Your task to perform on an android device: What's the weather today? Image 0: 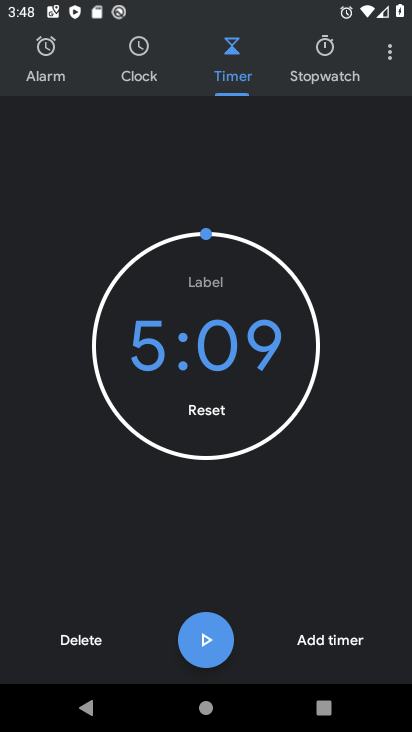
Step 0: press home button
Your task to perform on an android device: What's the weather today? Image 1: 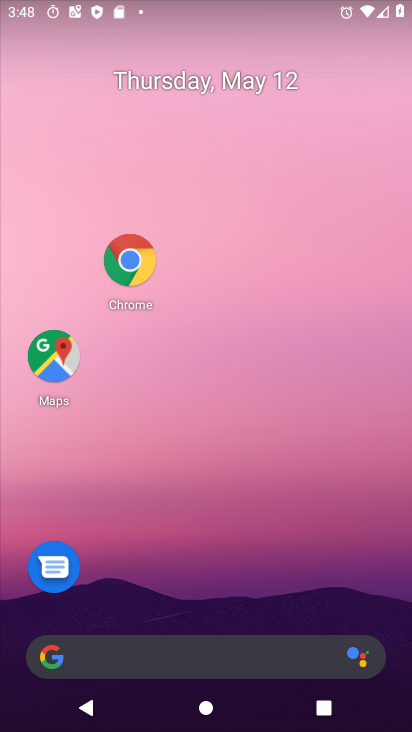
Step 1: drag from (221, 506) to (237, 325)
Your task to perform on an android device: What's the weather today? Image 2: 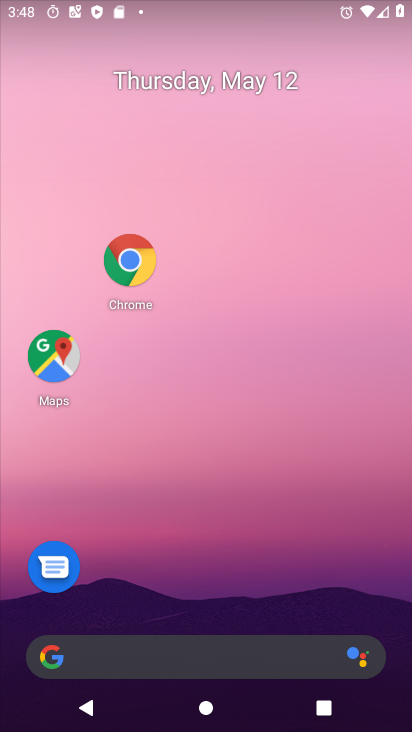
Step 2: drag from (194, 503) to (241, 229)
Your task to perform on an android device: What's the weather today? Image 3: 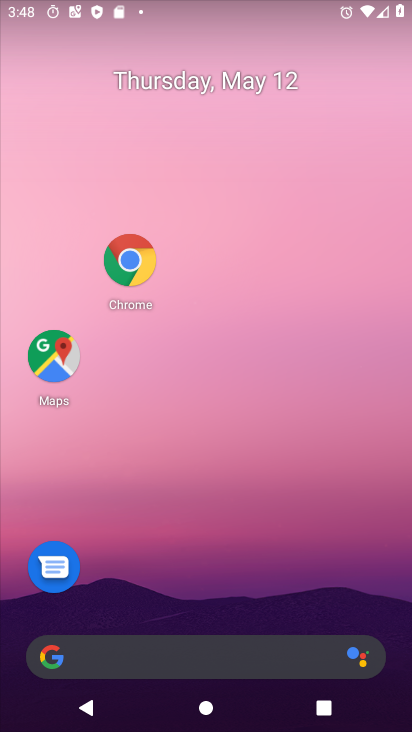
Step 3: drag from (213, 615) to (302, 249)
Your task to perform on an android device: What's the weather today? Image 4: 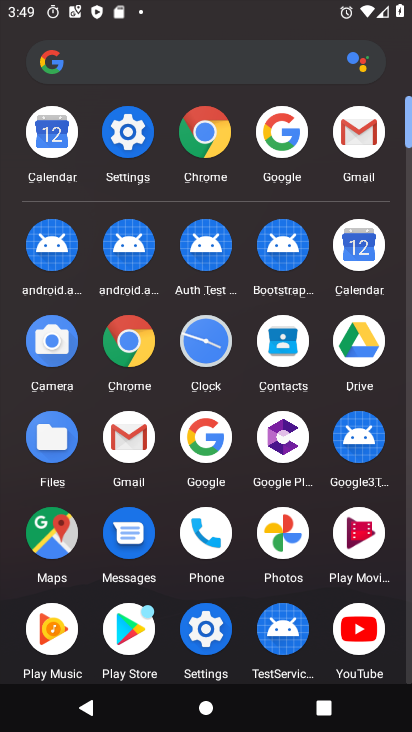
Step 4: click (203, 442)
Your task to perform on an android device: What's the weather today? Image 5: 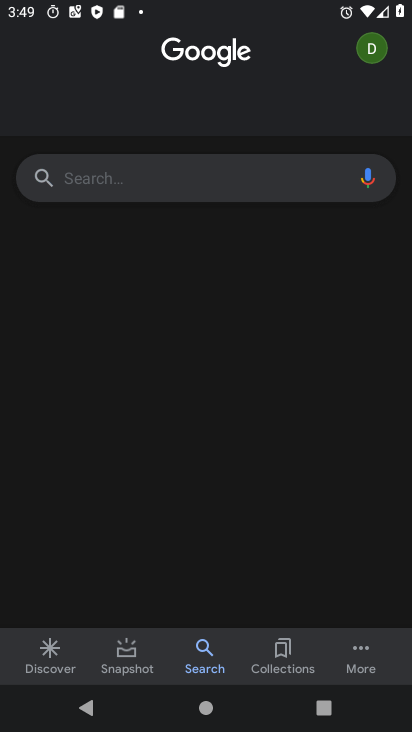
Step 5: click (98, 178)
Your task to perform on an android device: What's the weather today? Image 6: 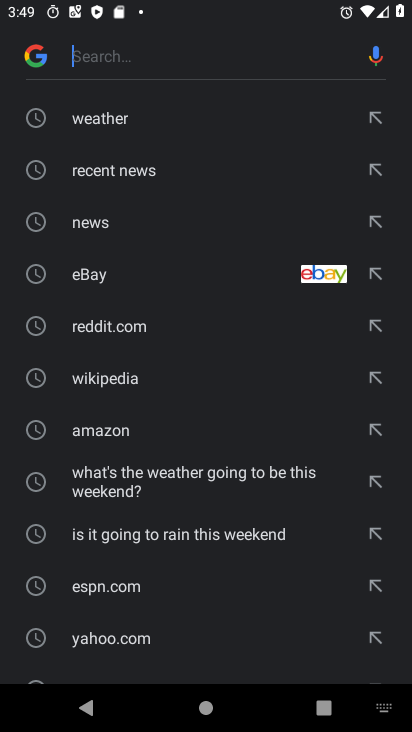
Step 6: click (90, 401)
Your task to perform on an android device: What's the weather today? Image 7: 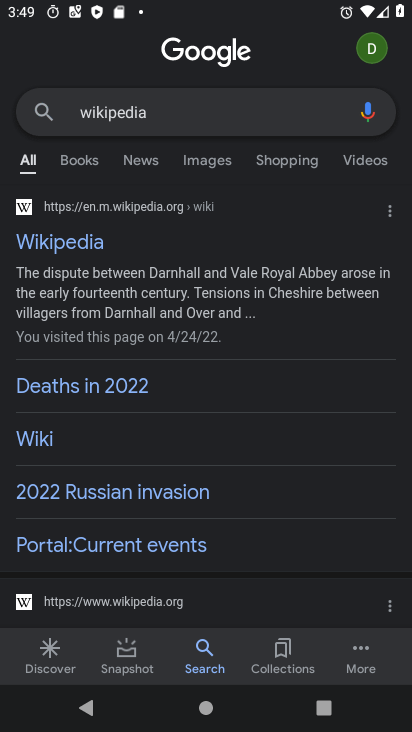
Step 7: click (206, 108)
Your task to perform on an android device: What's the weather today? Image 8: 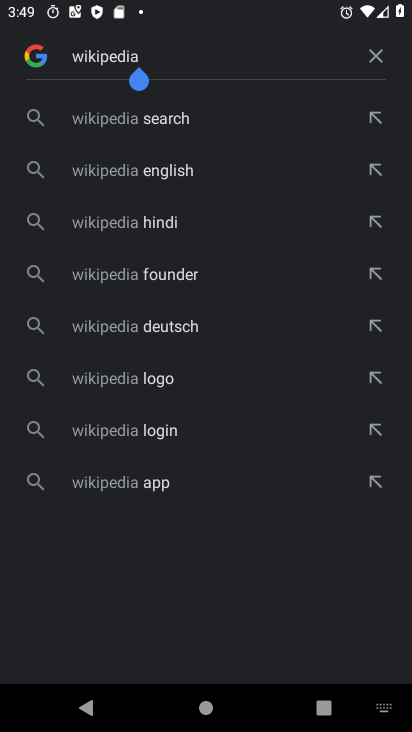
Step 8: click (377, 60)
Your task to perform on an android device: What's the weather today? Image 9: 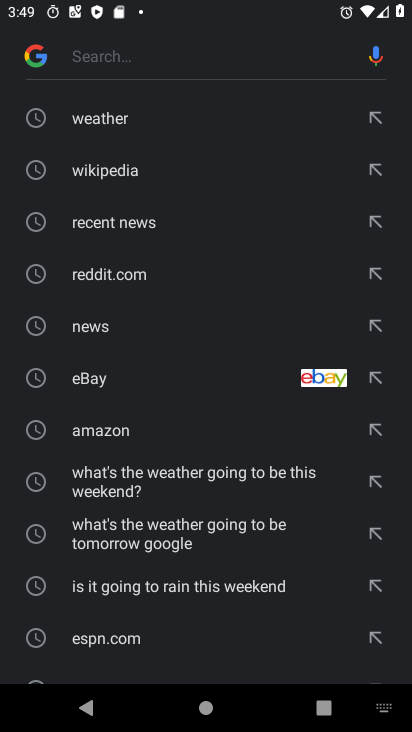
Step 9: click (107, 120)
Your task to perform on an android device: What's the weather today? Image 10: 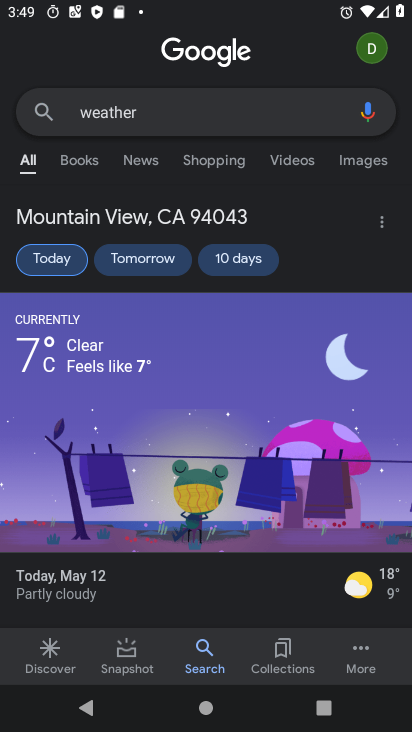
Step 10: drag from (182, 489) to (173, 258)
Your task to perform on an android device: What's the weather today? Image 11: 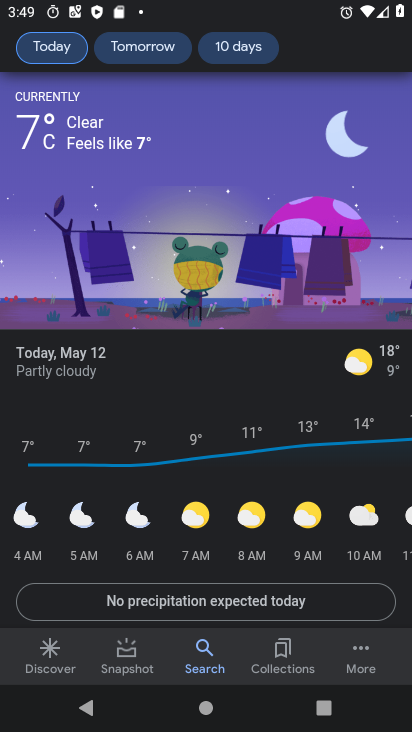
Step 11: drag from (207, 531) to (213, 309)
Your task to perform on an android device: What's the weather today? Image 12: 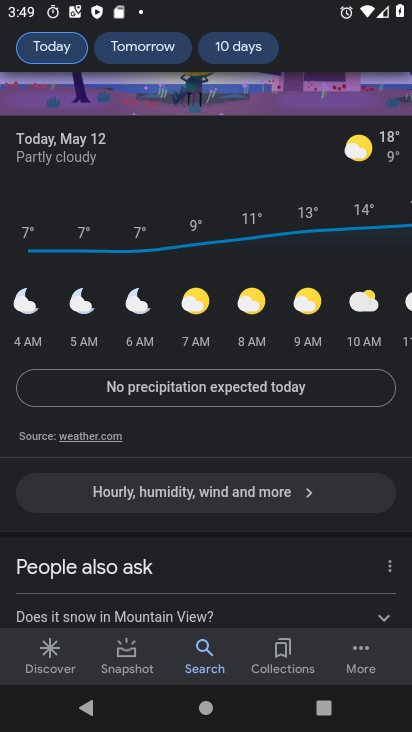
Step 12: click (199, 393)
Your task to perform on an android device: What's the weather today? Image 13: 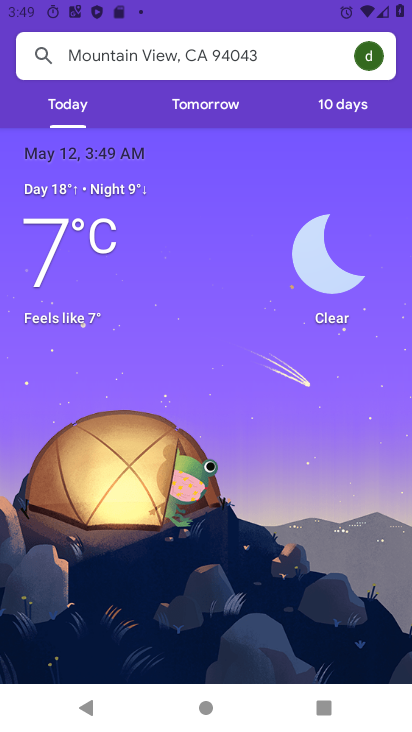
Step 13: task complete